Your task to perform on an android device: When is my next meeting? Image 0: 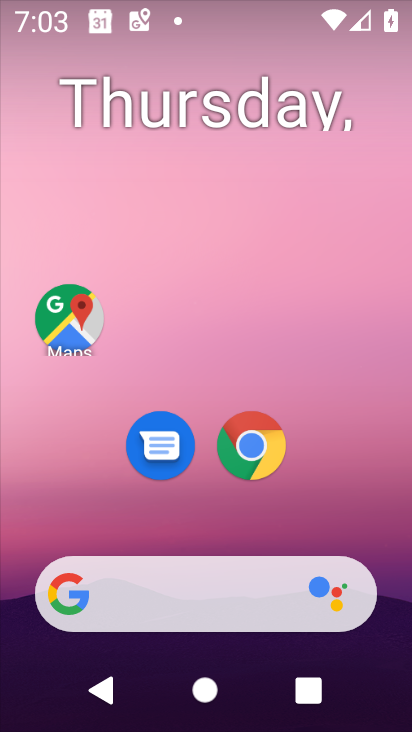
Step 0: drag from (383, 641) to (289, 71)
Your task to perform on an android device: When is my next meeting? Image 1: 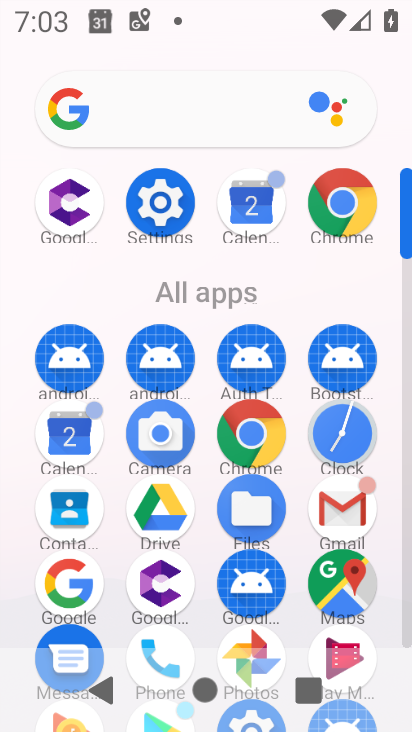
Step 1: click (24, 459)
Your task to perform on an android device: When is my next meeting? Image 2: 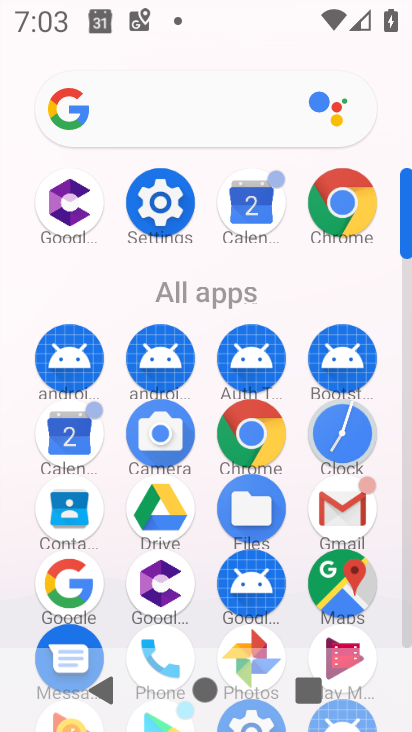
Step 2: click (89, 447)
Your task to perform on an android device: When is my next meeting? Image 3: 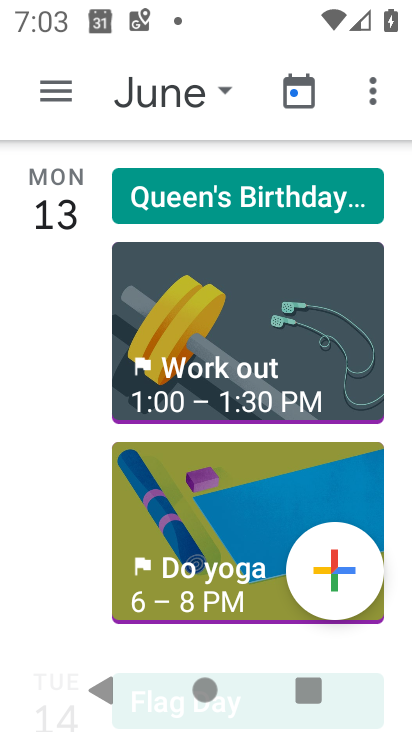
Step 3: task complete